Your task to perform on an android device: turn off notifications in google photos Image 0: 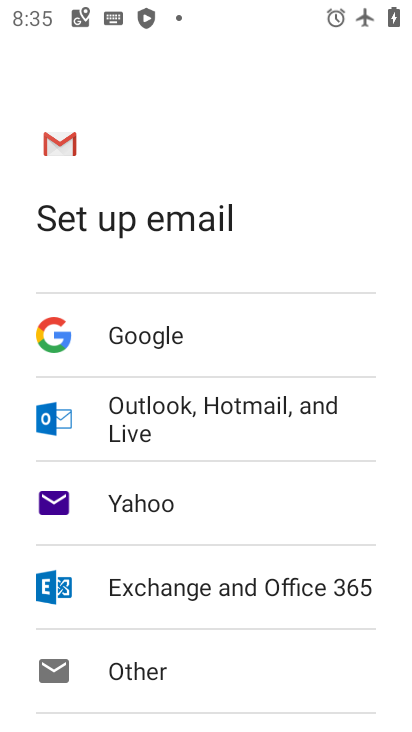
Step 0: press home button
Your task to perform on an android device: turn off notifications in google photos Image 1: 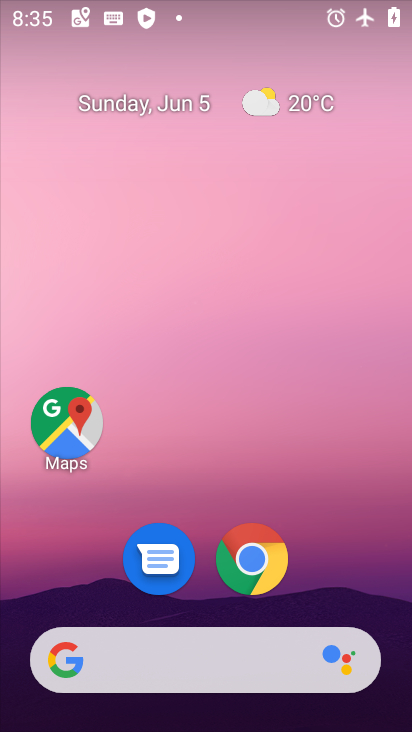
Step 1: drag from (326, 581) to (313, 245)
Your task to perform on an android device: turn off notifications in google photos Image 2: 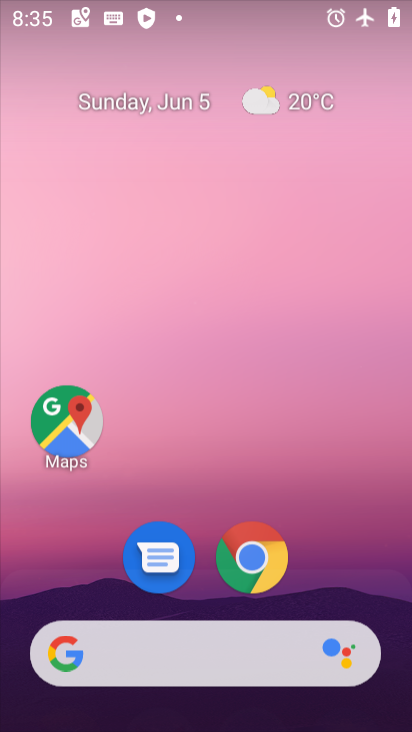
Step 2: click (304, 151)
Your task to perform on an android device: turn off notifications in google photos Image 3: 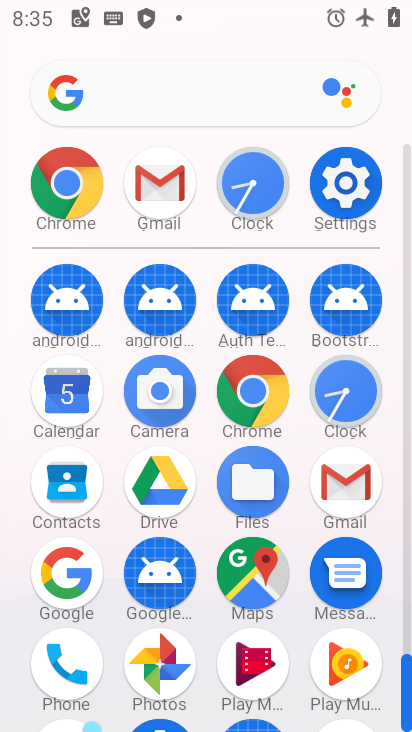
Step 3: click (163, 667)
Your task to perform on an android device: turn off notifications in google photos Image 4: 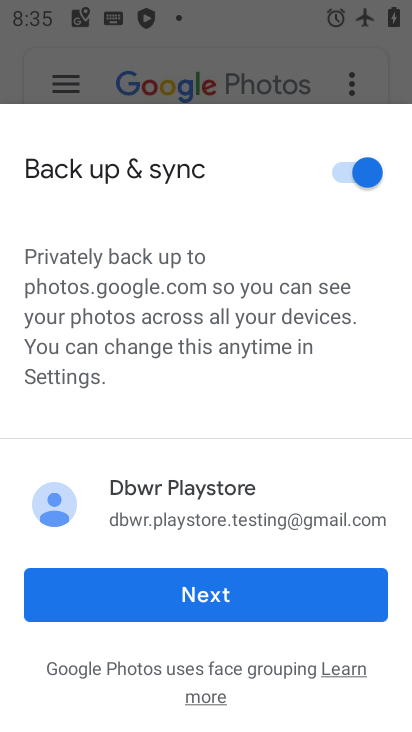
Step 4: click (189, 601)
Your task to perform on an android device: turn off notifications in google photos Image 5: 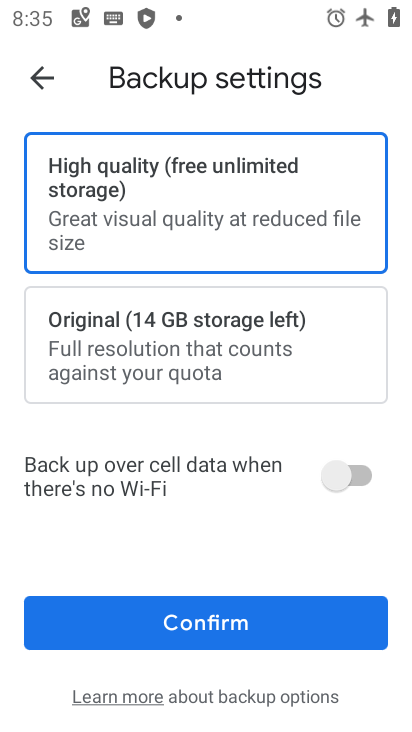
Step 5: click (189, 601)
Your task to perform on an android device: turn off notifications in google photos Image 6: 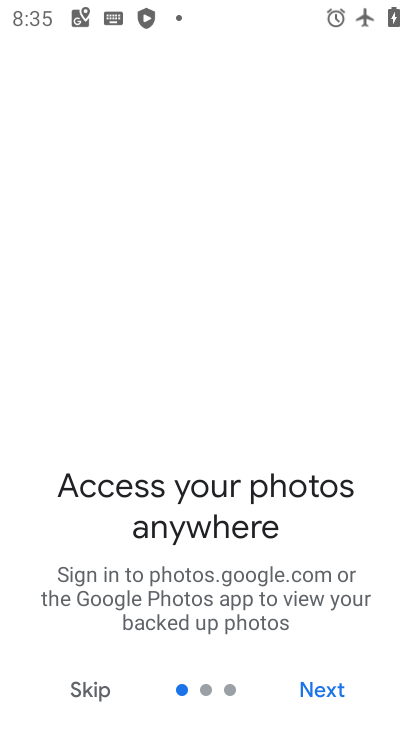
Step 6: click (311, 682)
Your task to perform on an android device: turn off notifications in google photos Image 7: 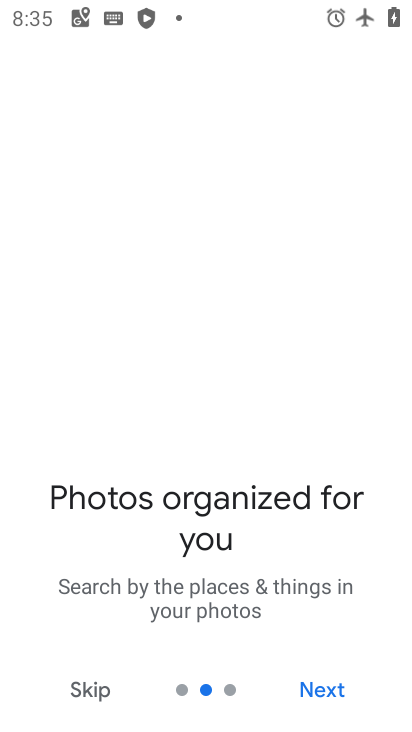
Step 7: click (311, 682)
Your task to perform on an android device: turn off notifications in google photos Image 8: 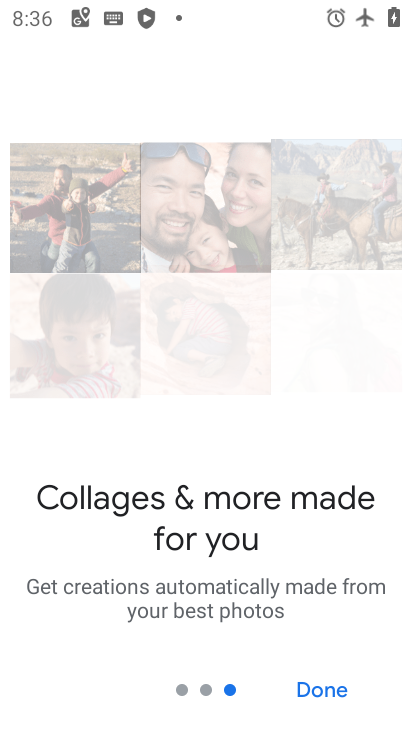
Step 8: click (311, 682)
Your task to perform on an android device: turn off notifications in google photos Image 9: 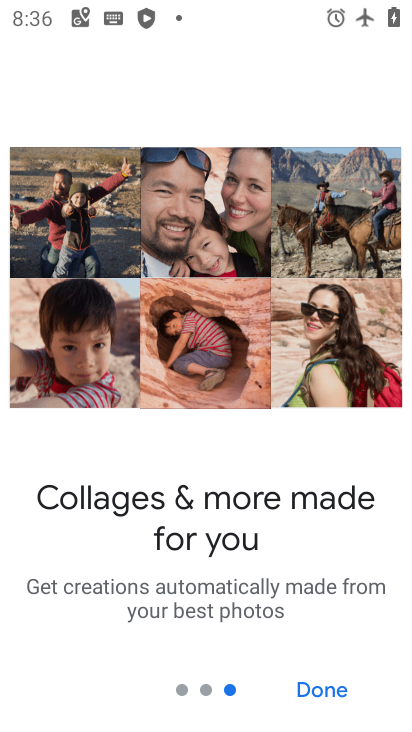
Step 9: click (312, 681)
Your task to perform on an android device: turn off notifications in google photos Image 10: 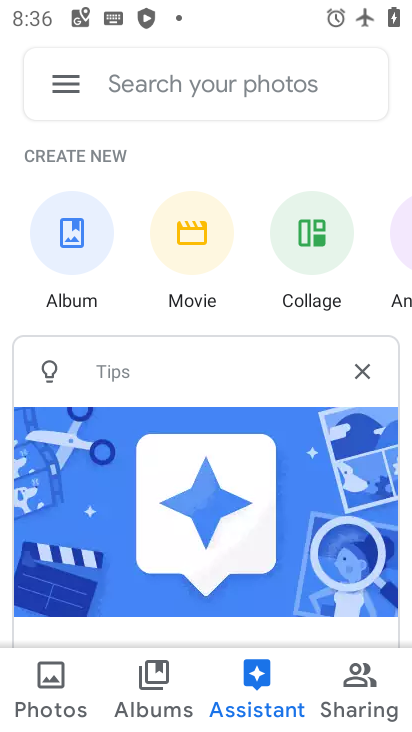
Step 10: click (68, 82)
Your task to perform on an android device: turn off notifications in google photos Image 11: 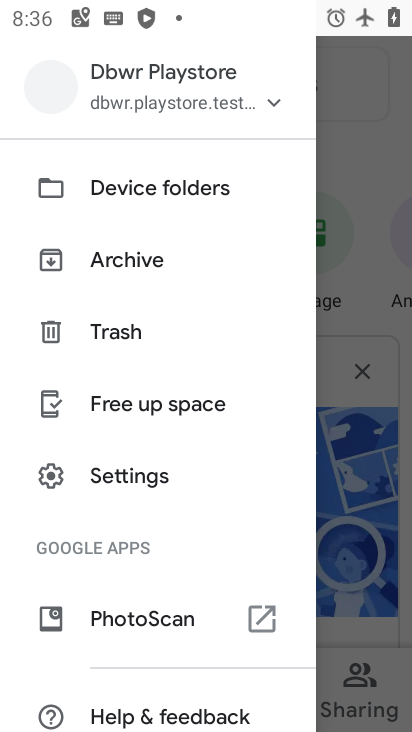
Step 11: drag from (145, 605) to (218, 134)
Your task to perform on an android device: turn off notifications in google photos Image 12: 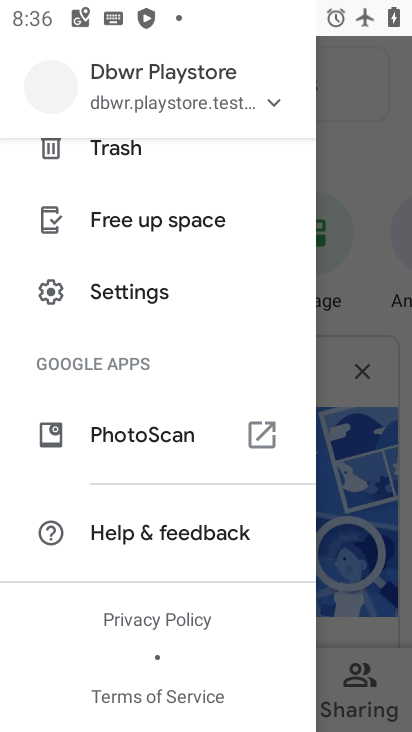
Step 12: click (124, 296)
Your task to perform on an android device: turn off notifications in google photos Image 13: 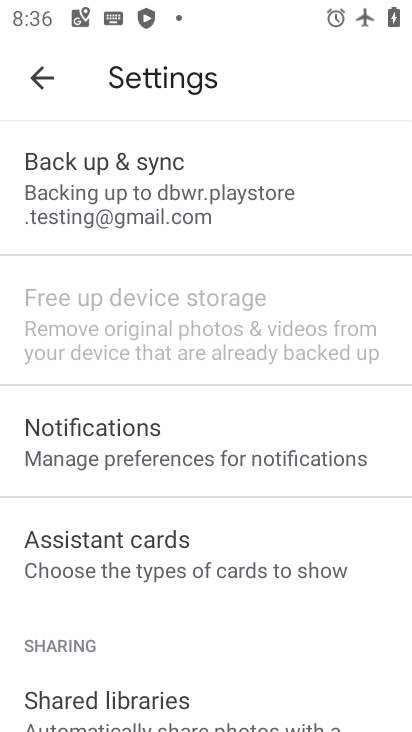
Step 13: click (171, 432)
Your task to perform on an android device: turn off notifications in google photos Image 14: 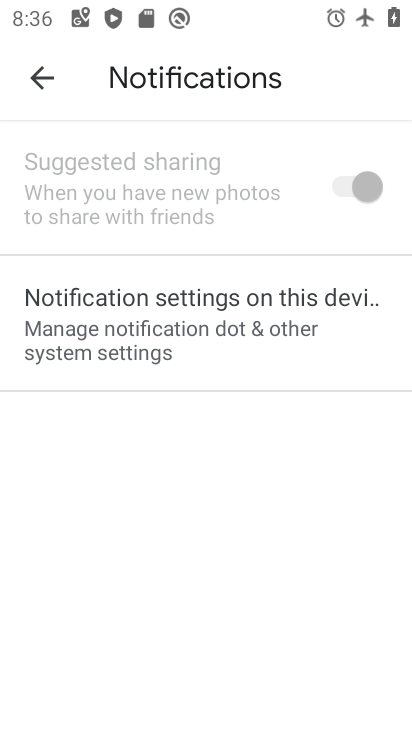
Step 14: click (216, 312)
Your task to perform on an android device: turn off notifications in google photos Image 15: 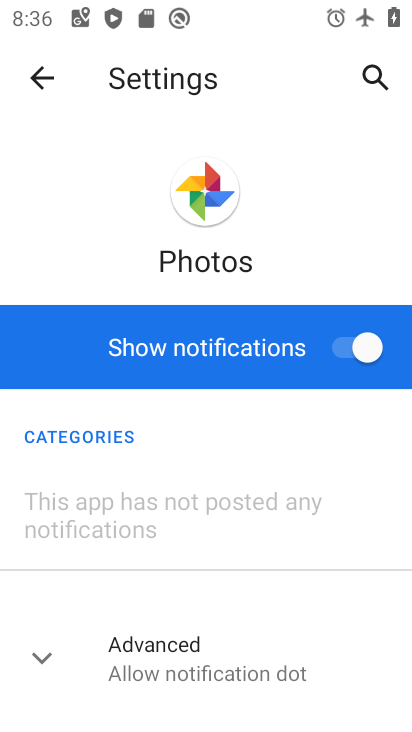
Step 15: click (344, 358)
Your task to perform on an android device: turn off notifications in google photos Image 16: 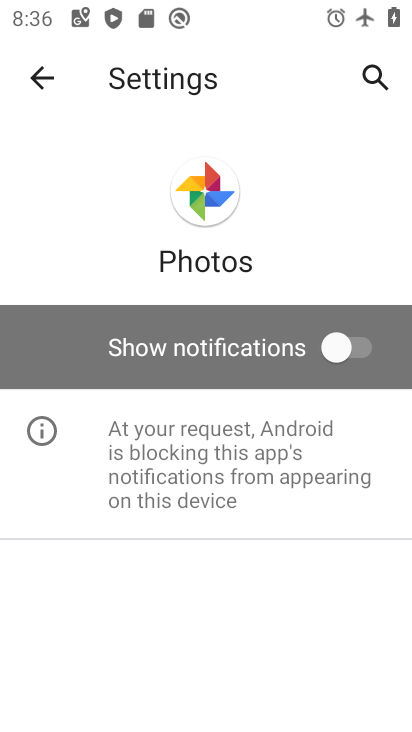
Step 16: task complete